Your task to perform on an android device: Open notification settings Image 0: 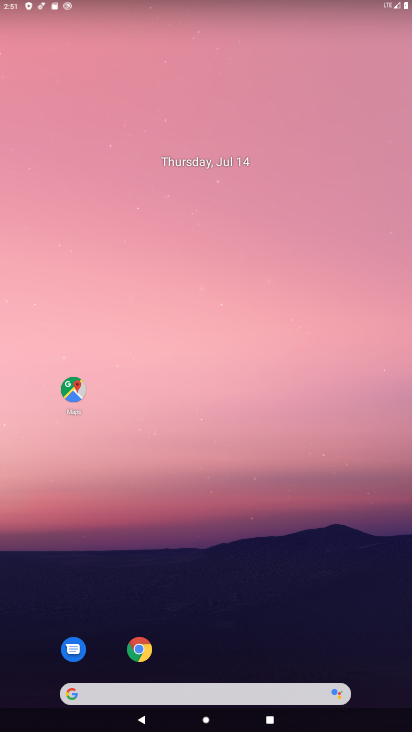
Step 0: drag from (229, 613) to (185, 23)
Your task to perform on an android device: Open notification settings Image 1: 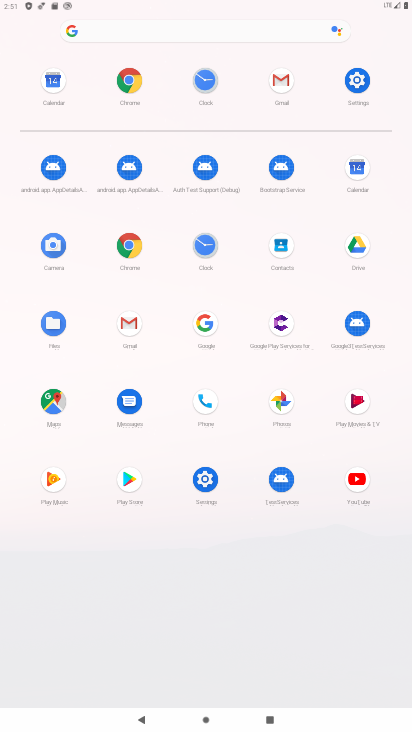
Step 1: click (212, 482)
Your task to perform on an android device: Open notification settings Image 2: 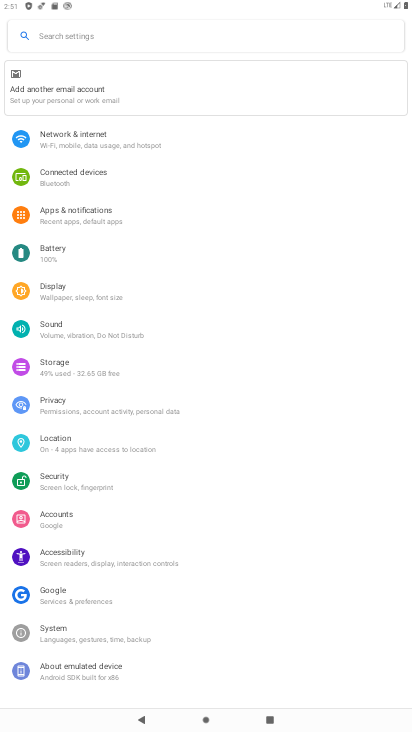
Step 2: click (108, 212)
Your task to perform on an android device: Open notification settings Image 3: 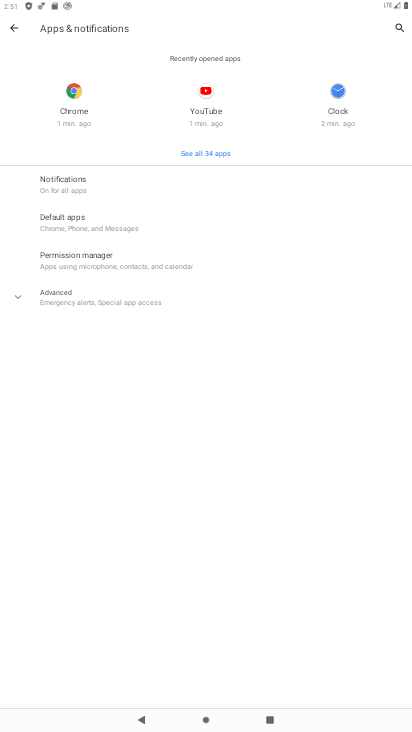
Step 3: click (57, 176)
Your task to perform on an android device: Open notification settings Image 4: 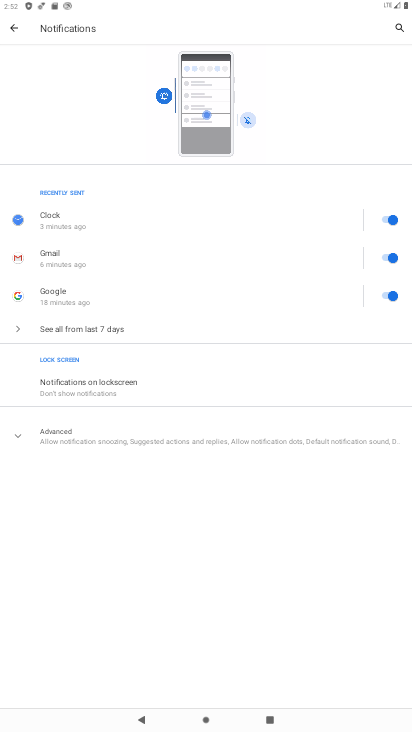
Step 4: task complete